Your task to perform on an android device: delete browsing data in the chrome app Image 0: 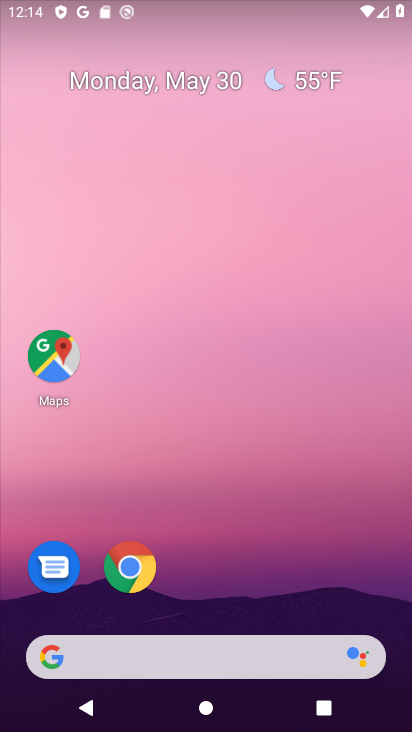
Step 0: press home button
Your task to perform on an android device: delete browsing data in the chrome app Image 1: 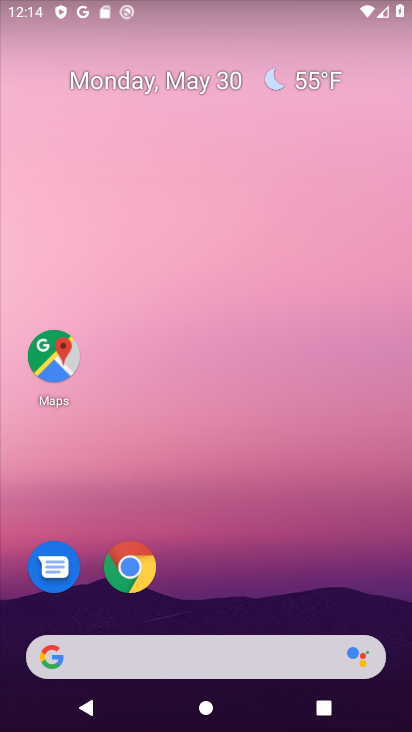
Step 1: click (127, 565)
Your task to perform on an android device: delete browsing data in the chrome app Image 2: 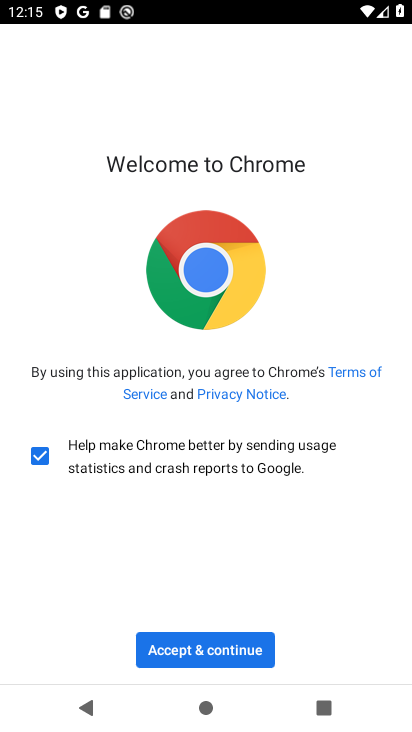
Step 2: click (204, 649)
Your task to perform on an android device: delete browsing data in the chrome app Image 3: 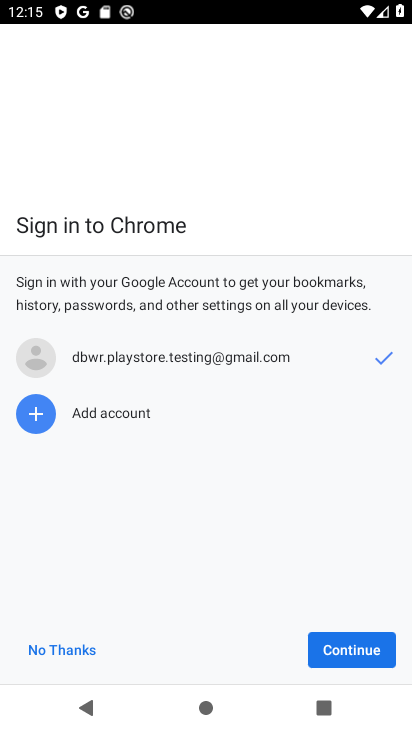
Step 3: click (345, 646)
Your task to perform on an android device: delete browsing data in the chrome app Image 4: 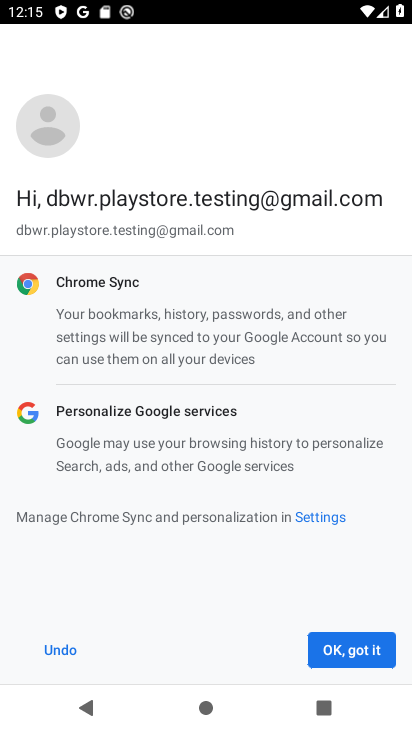
Step 4: click (345, 646)
Your task to perform on an android device: delete browsing data in the chrome app Image 5: 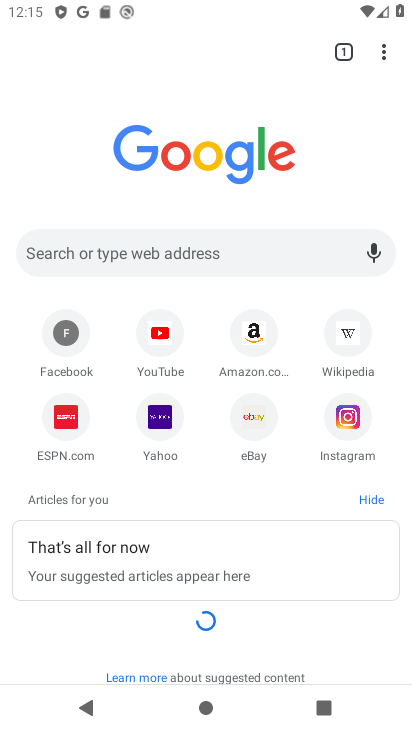
Step 5: click (380, 48)
Your task to perform on an android device: delete browsing data in the chrome app Image 6: 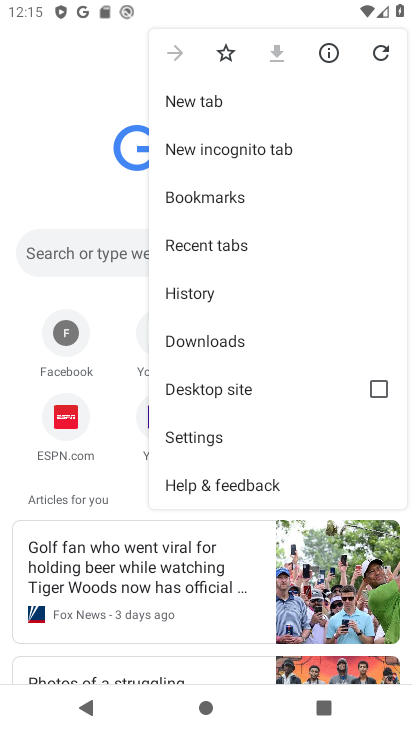
Step 6: click (228, 286)
Your task to perform on an android device: delete browsing data in the chrome app Image 7: 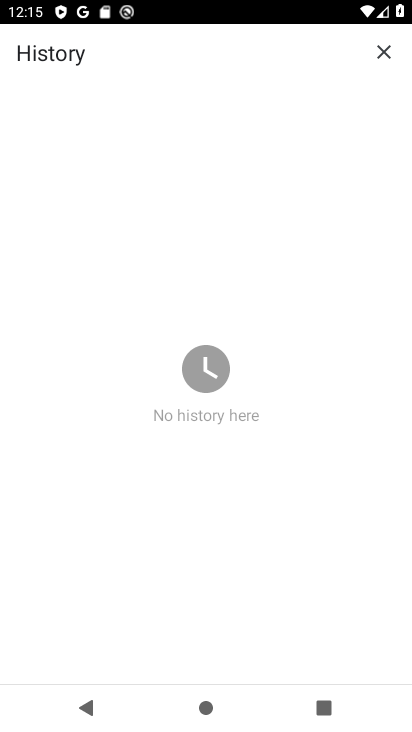
Step 7: task complete